Your task to perform on an android device: Add "macbook" to the cart on costco.com Image 0: 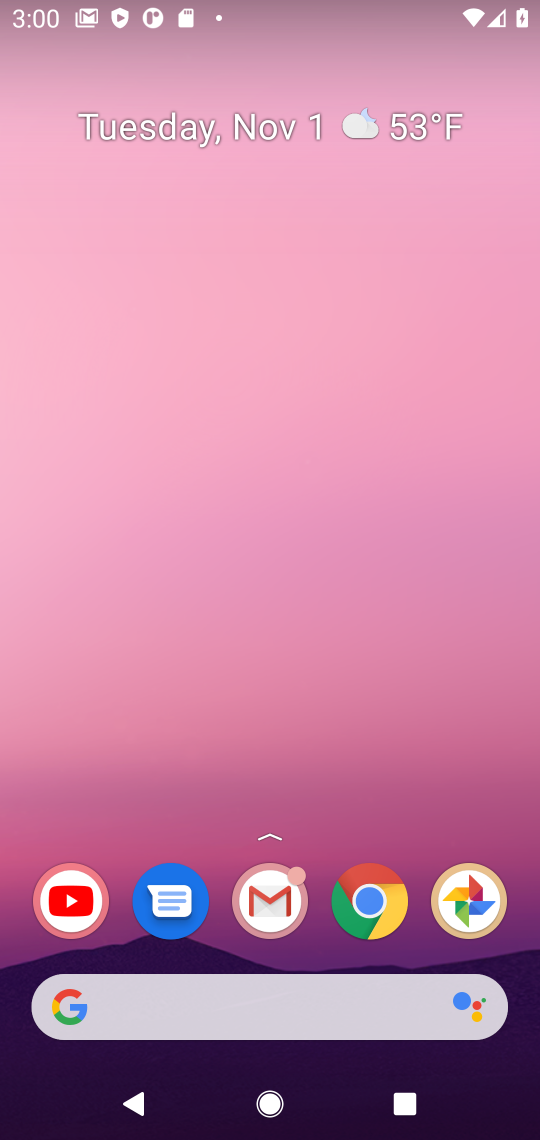
Step 0: click (368, 901)
Your task to perform on an android device: Add "macbook" to the cart on costco.com Image 1: 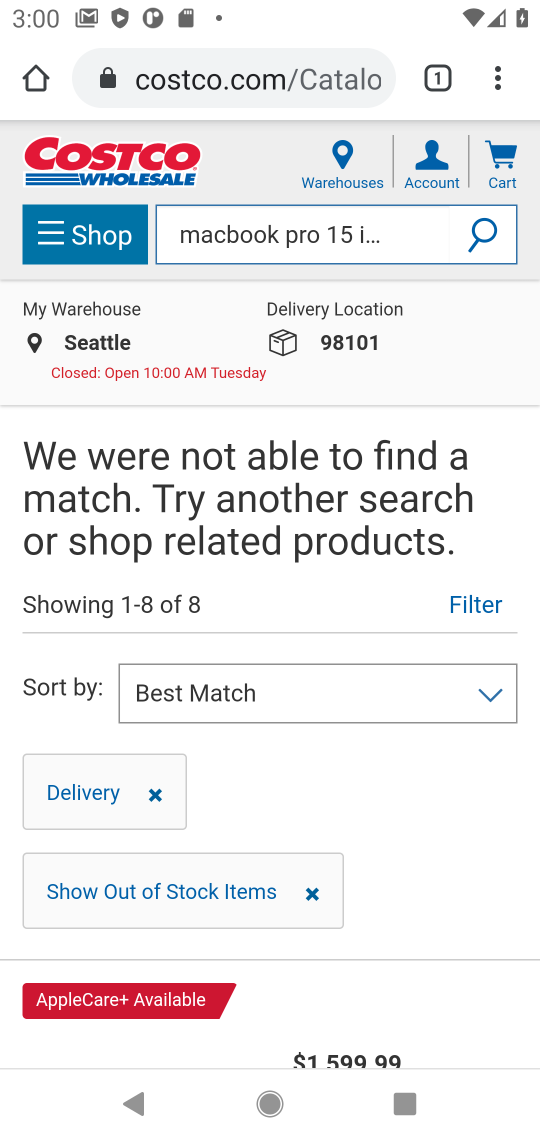
Step 1: click (449, 240)
Your task to perform on an android device: Add "macbook" to the cart on costco.com Image 2: 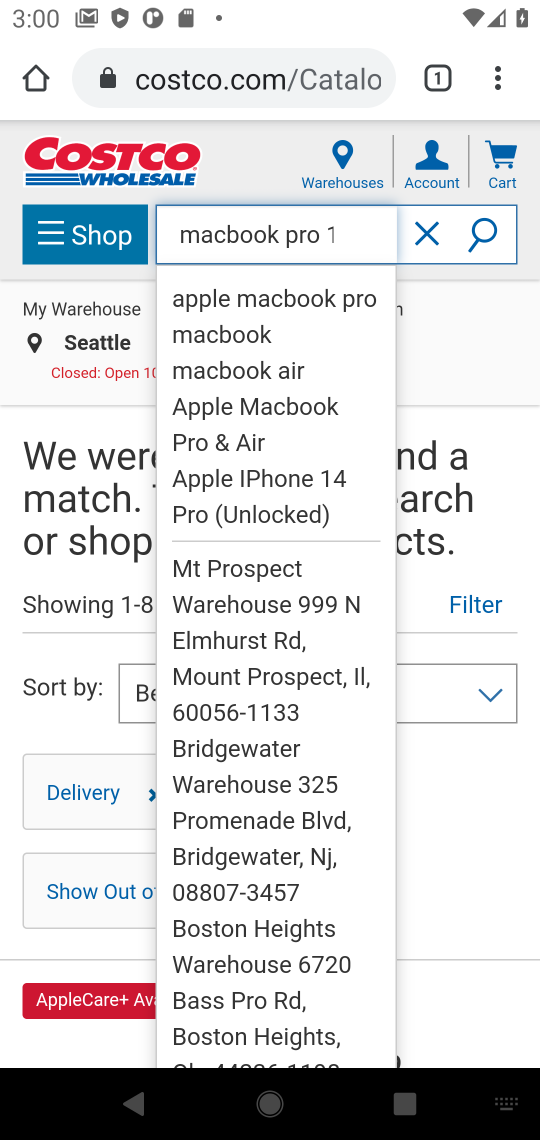
Step 2: click (430, 234)
Your task to perform on an android device: Add "macbook" to the cart on costco.com Image 3: 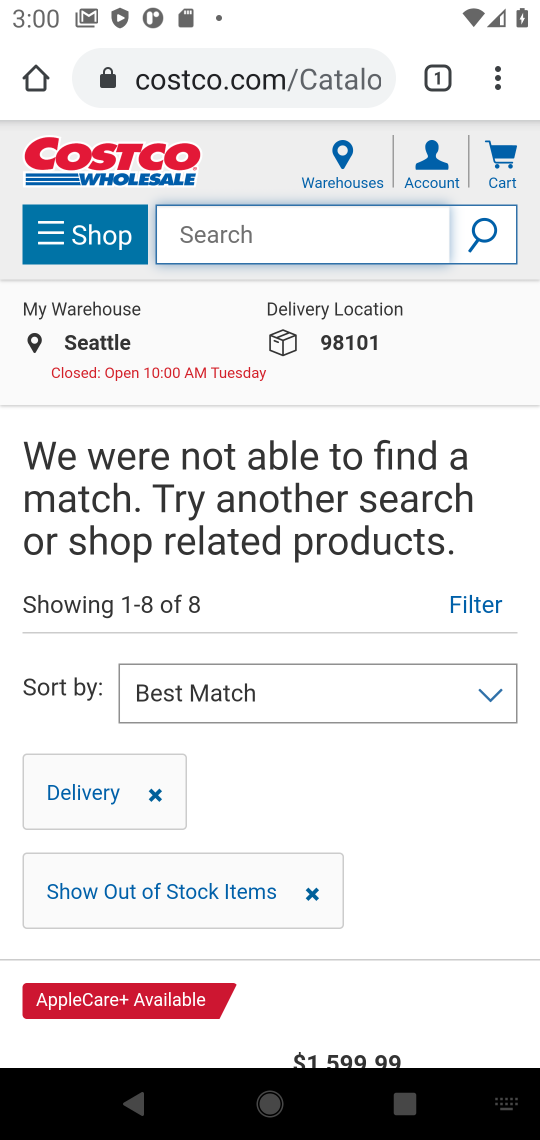
Step 3: type "macbook"
Your task to perform on an android device: Add "macbook" to the cart on costco.com Image 4: 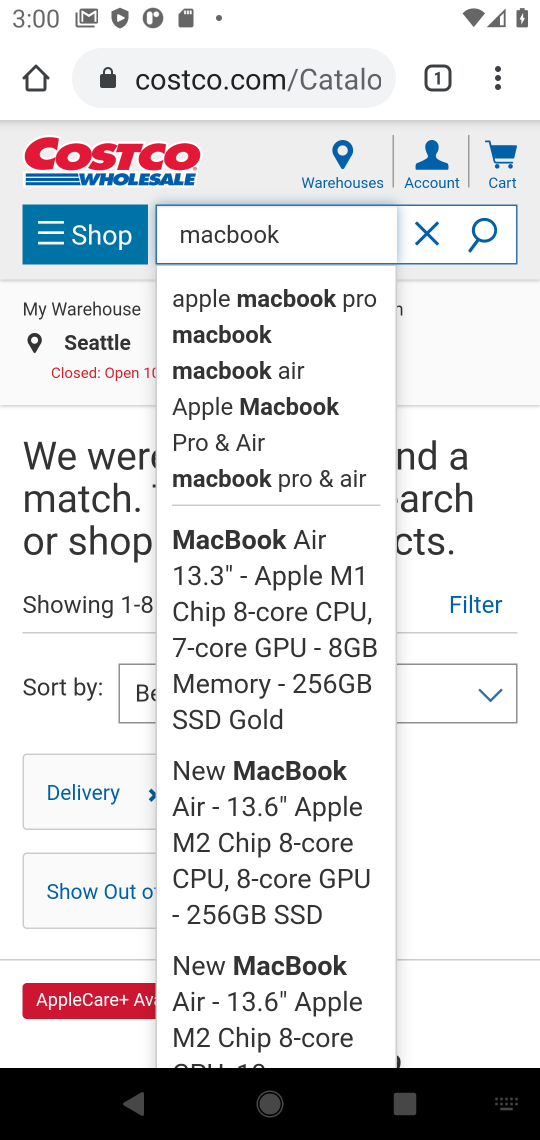
Step 4: click (496, 212)
Your task to perform on an android device: Add "macbook" to the cart on costco.com Image 5: 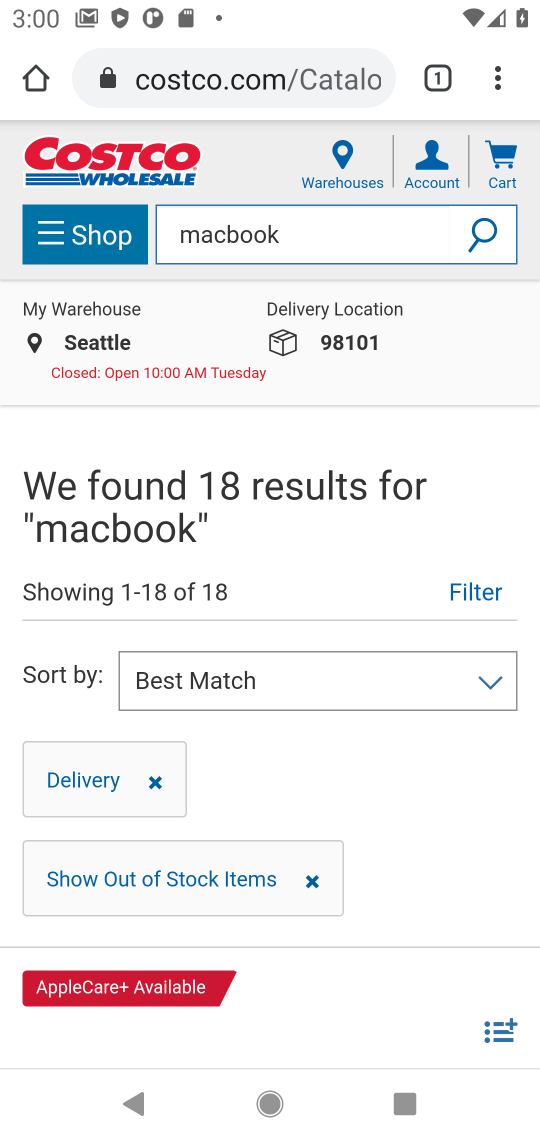
Step 5: drag from (393, 542) to (329, 294)
Your task to perform on an android device: Add "macbook" to the cart on costco.com Image 6: 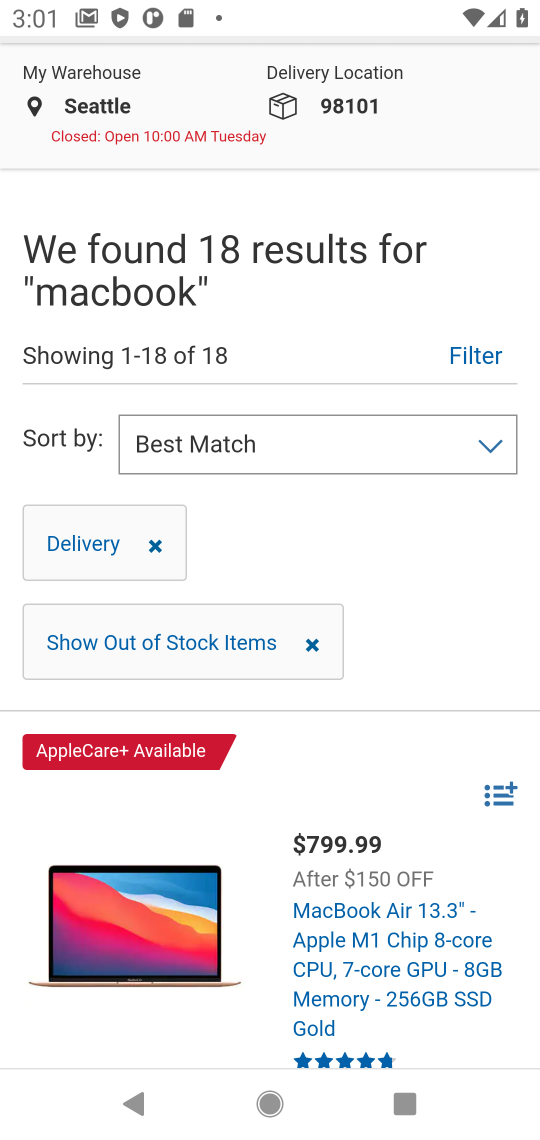
Step 6: drag from (348, 513) to (341, 337)
Your task to perform on an android device: Add "macbook" to the cart on costco.com Image 7: 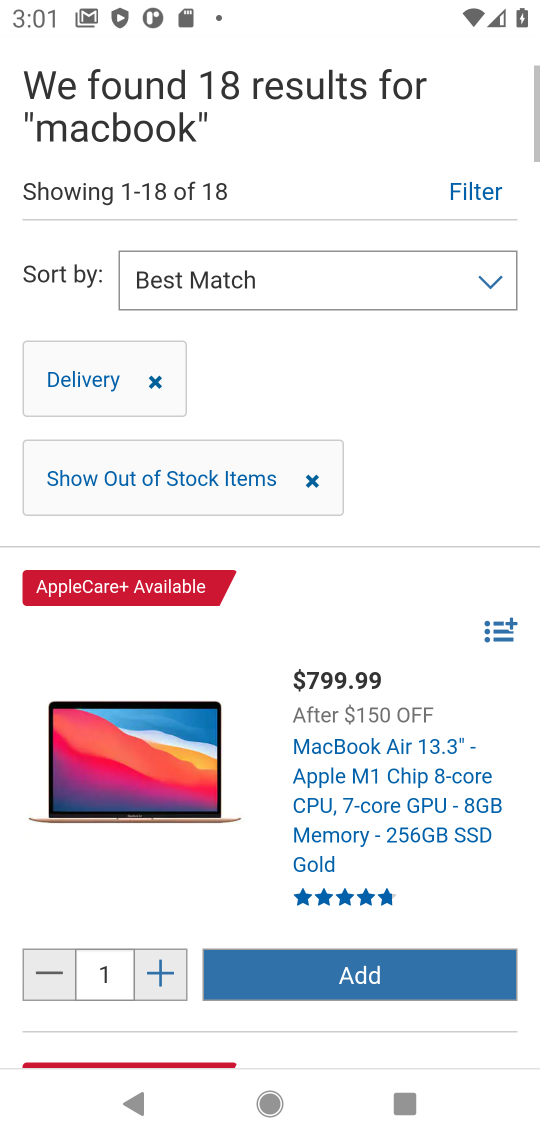
Step 7: click (149, 912)
Your task to perform on an android device: Add "macbook" to the cart on costco.com Image 8: 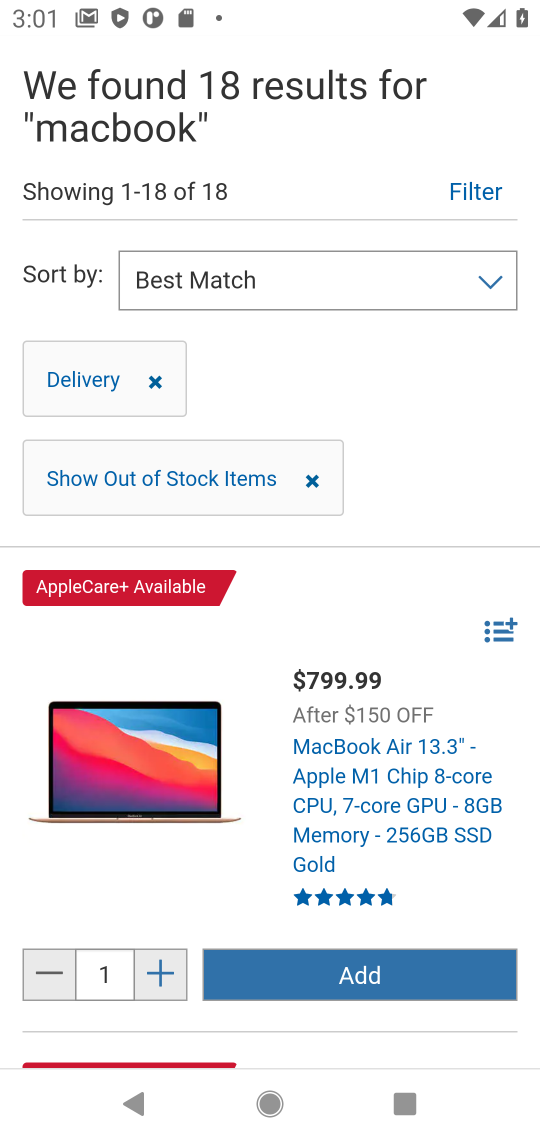
Step 8: click (152, 808)
Your task to perform on an android device: Add "macbook" to the cart on costco.com Image 9: 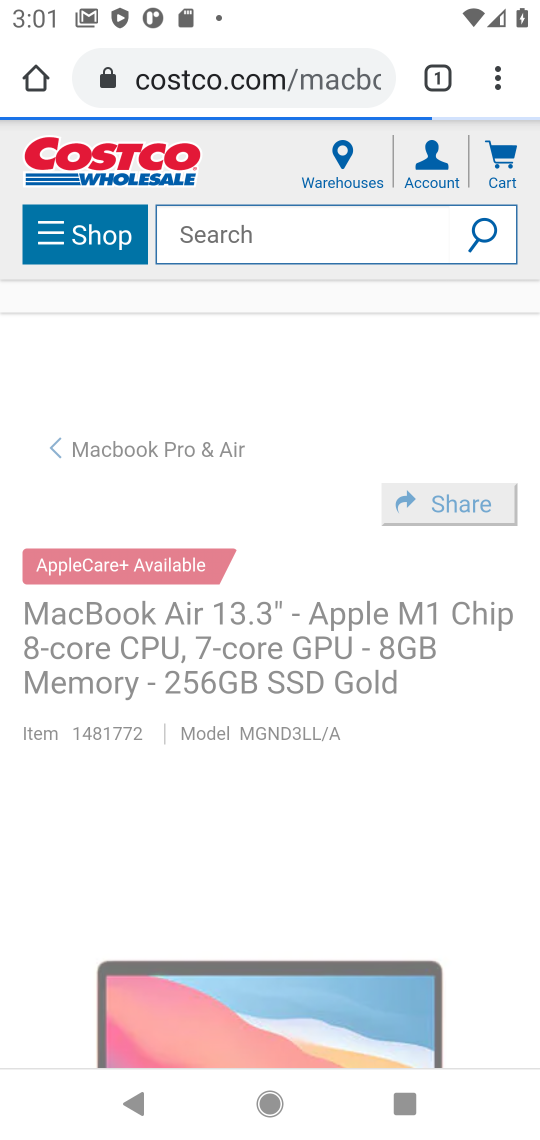
Step 9: drag from (387, 816) to (360, 130)
Your task to perform on an android device: Add "macbook" to the cart on costco.com Image 10: 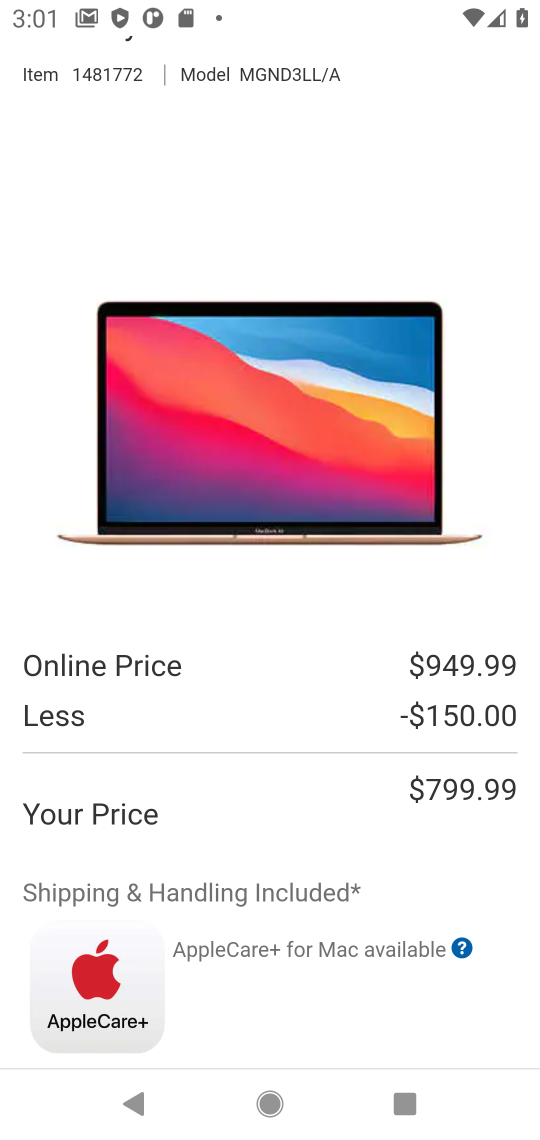
Step 10: drag from (300, 854) to (206, 471)
Your task to perform on an android device: Add "macbook" to the cart on costco.com Image 11: 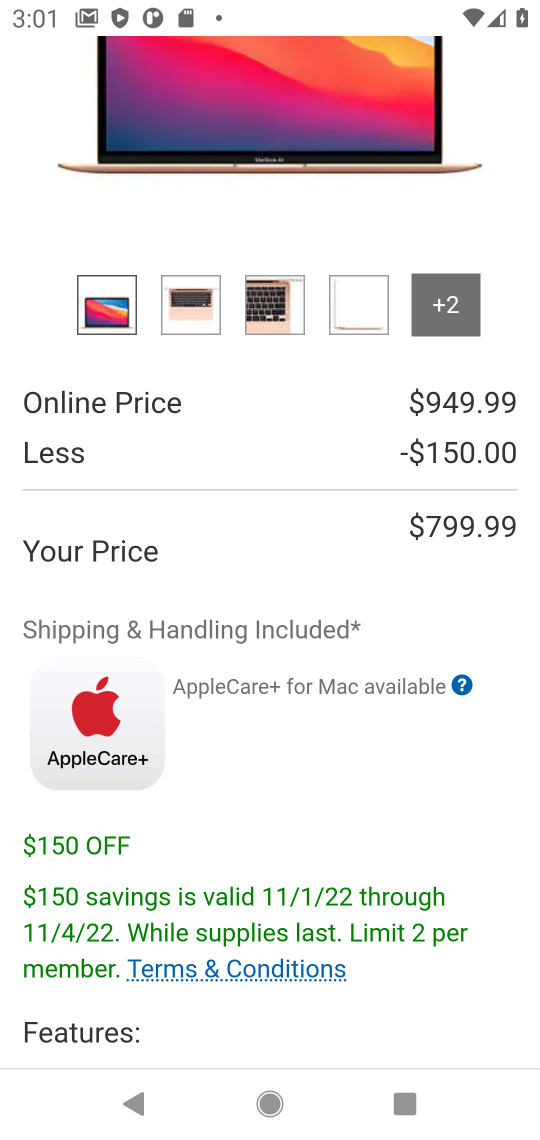
Step 11: drag from (381, 939) to (212, 96)
Your task to perform on an android device: Add "macbook" to the cart on costco.com Image 12: 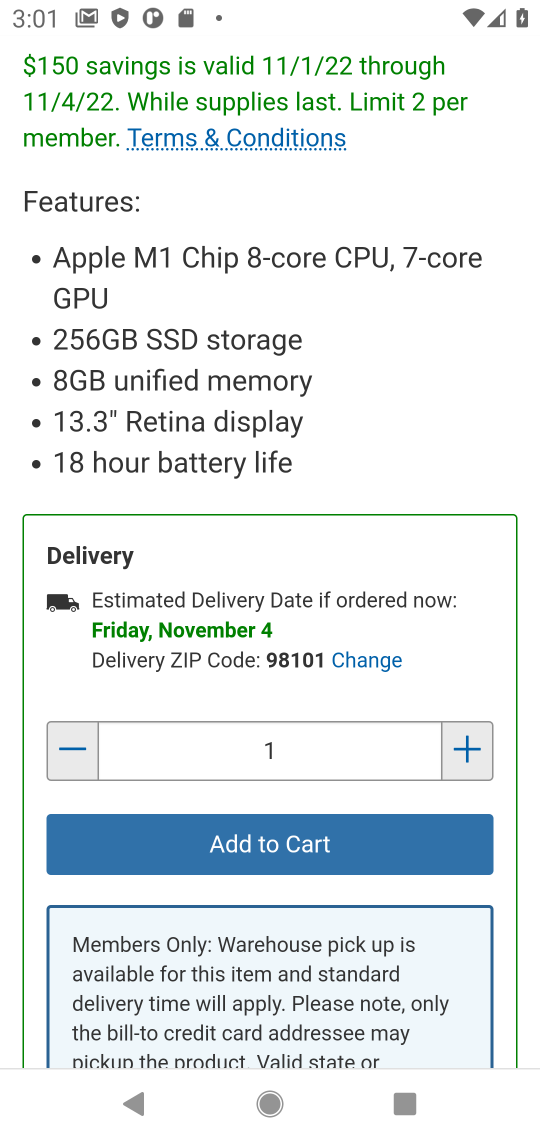
Step 12: click (264, 853)
Your task to perform on an android device: Add "macbook" to the cart on costco.com Image 13: 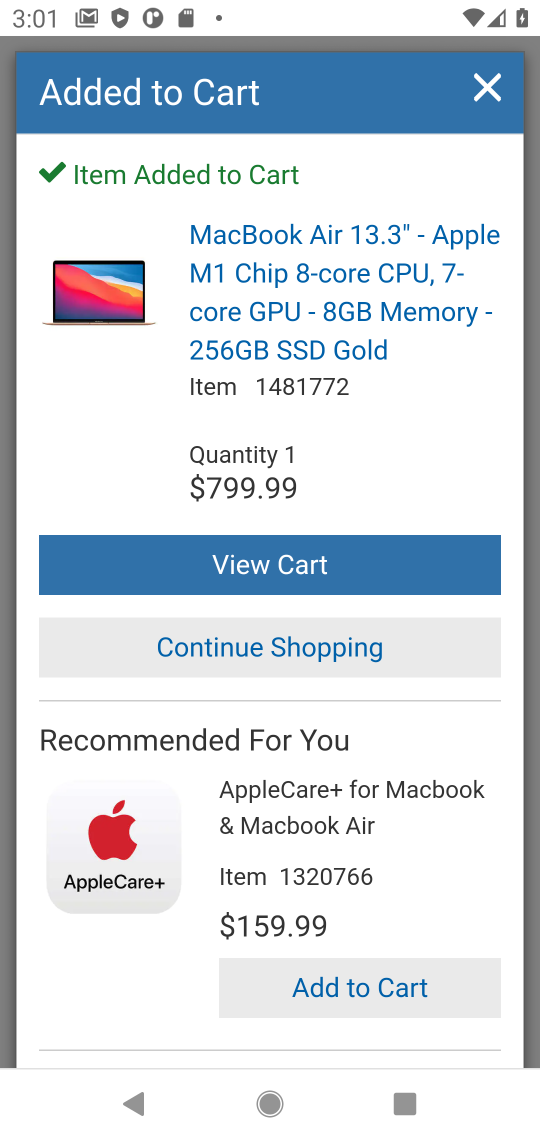
Step 13: task complete